Your task to perform on an android device: Toggle the flashlight Image 0: 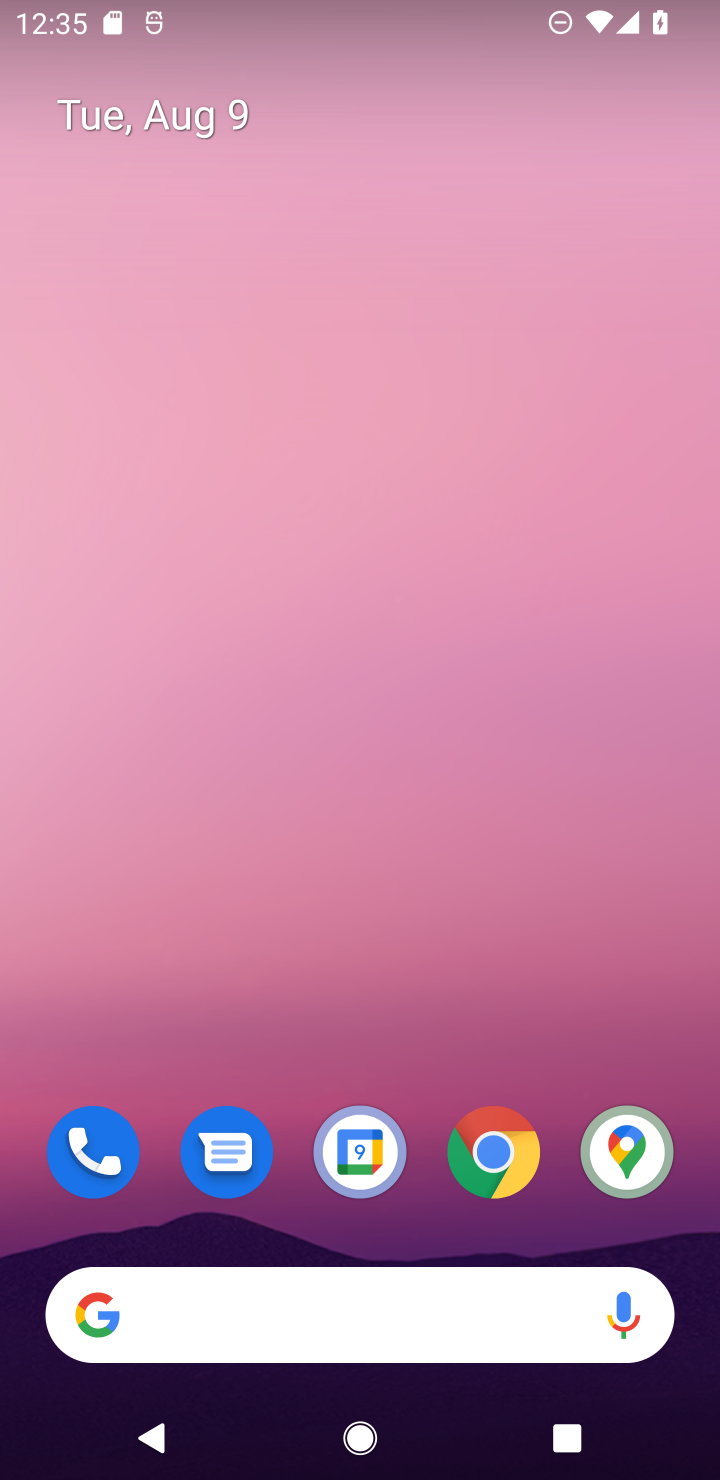
Step 0: drag from (557, 16) to (530, 1249)
Your task to perform on an android device: Toggle the flashlight Image 1: 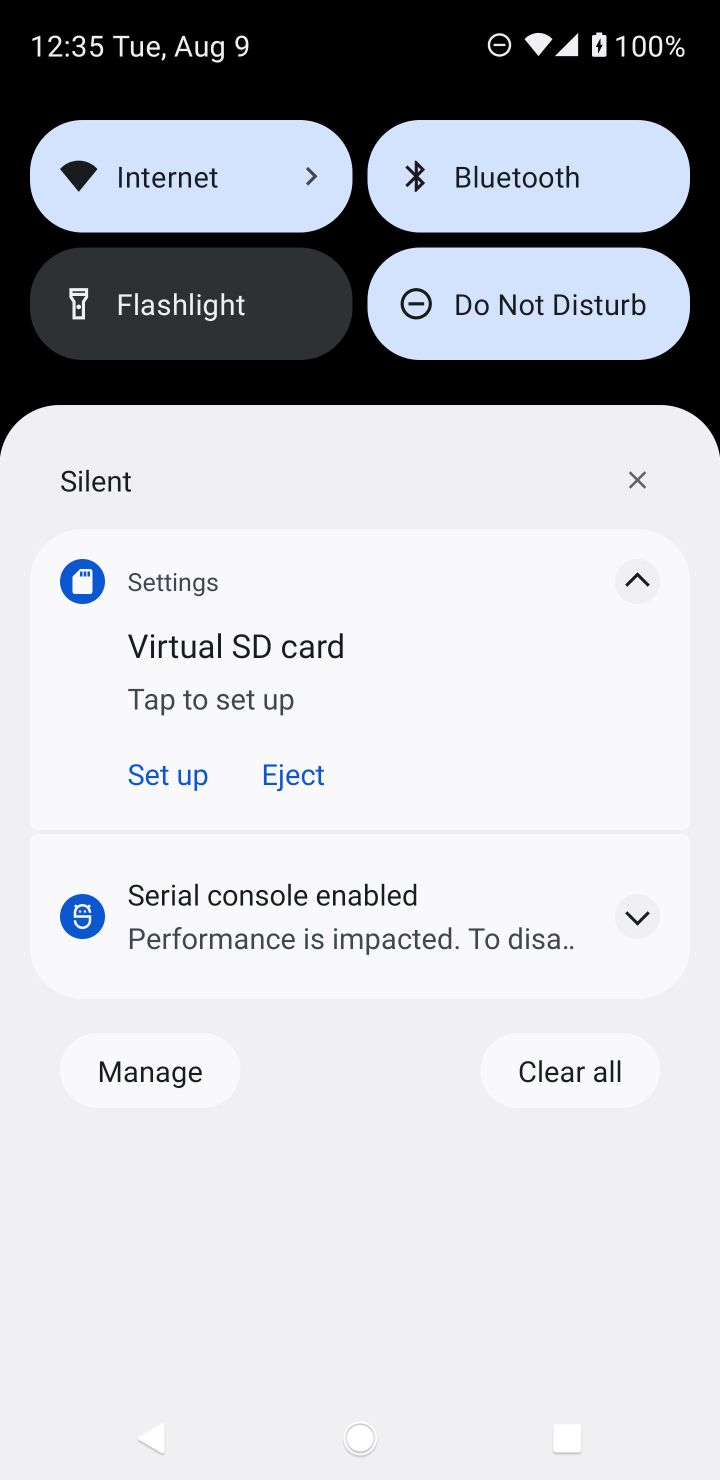
Step 1: click (220, 307)
Your task to perform on an android device: Toggle the flashlight Image 2: 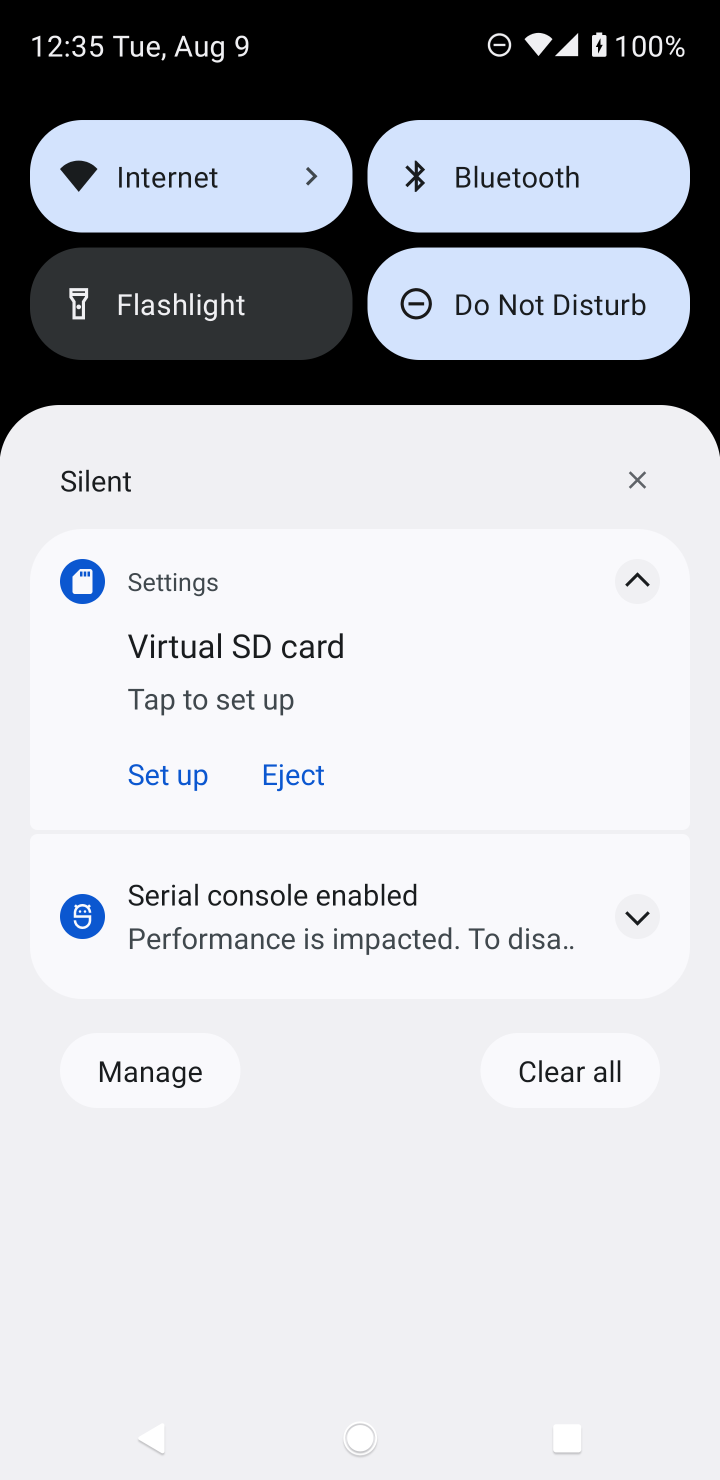
Step 2: task complete